Your task to perform on an android device: turn off sleep mode Image 0: 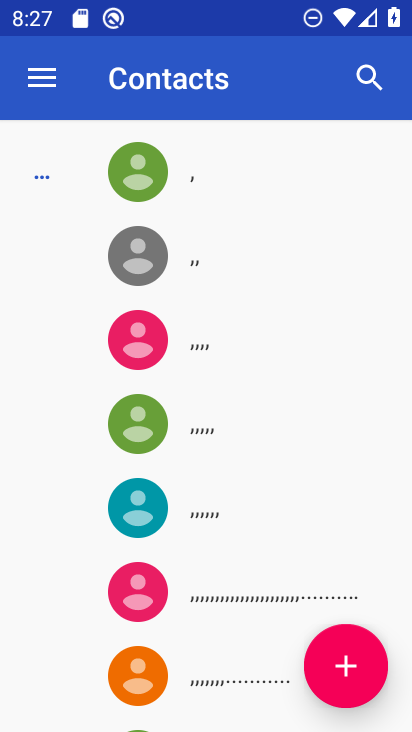
Step 0: press home button
Your task to perform on an android device: turn off sleep mode Image 1: 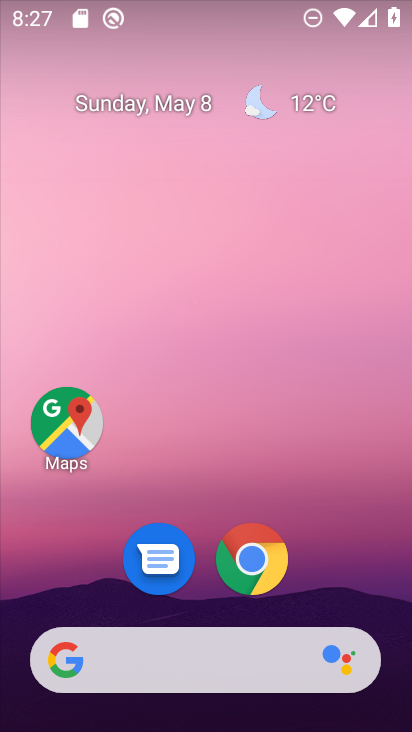
Step 1: drag from (348, 569) to (357, 5)
Your task to perform on an android device: turn off sleep mode Image 2: 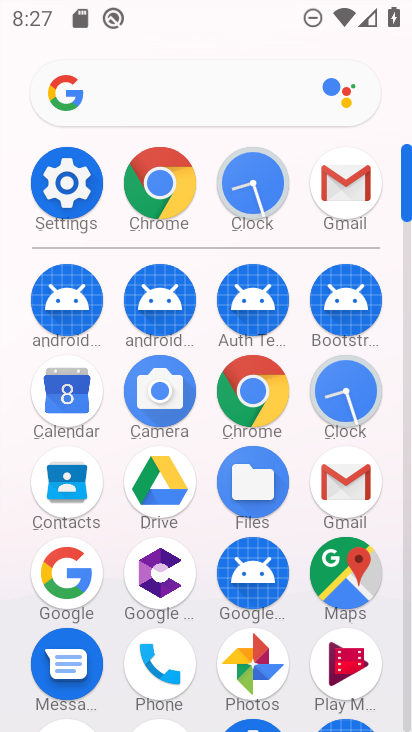
Step 2: click (57, 186)
Your task to perform on an android device: turn off sleep mode Image 3: 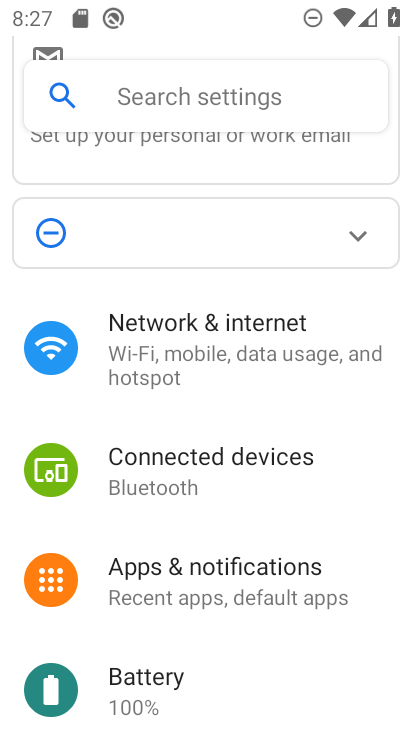
Step 3: drag from (215, 660) to (229, 163)
Your task to perform on an android device: turn off sleep mode Image 4: 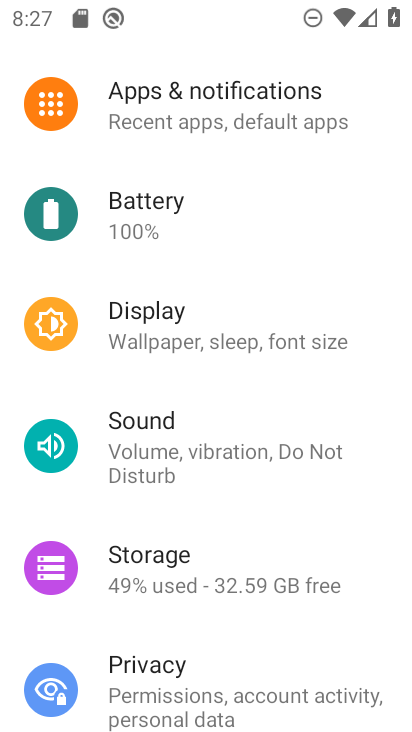
Step 4: click (121, 346)
Your task to perform on an android device: turn off sleep mode Image 5: 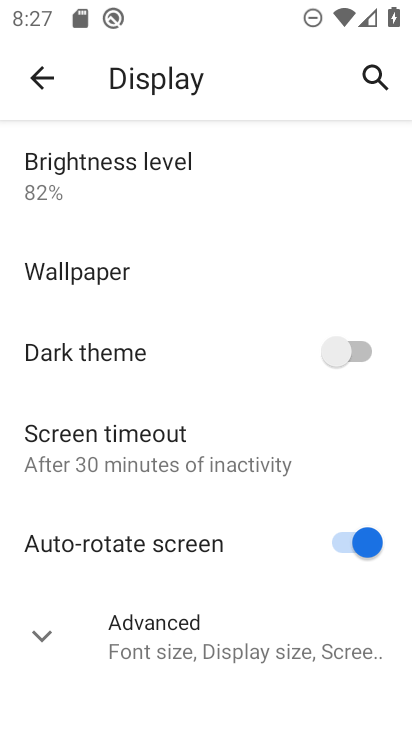
Step 5: drag from (203, 590) to (198, 236)
Your task to perform on an android device: turn off sleep mode Image 6: 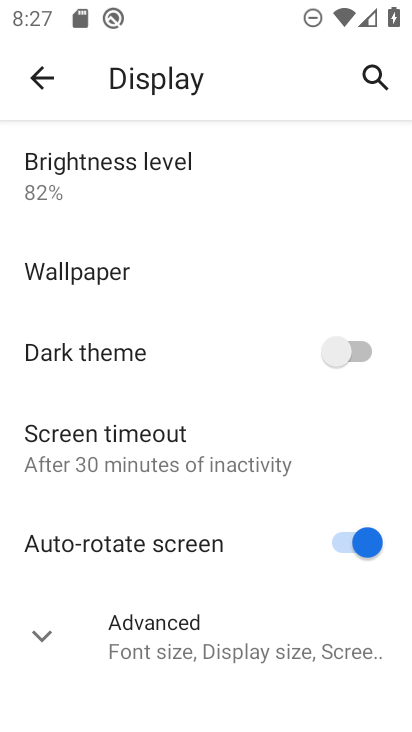
Step 6: click (39, 640)
Your task to perform on an android device: turn off sleep mode Image 7: 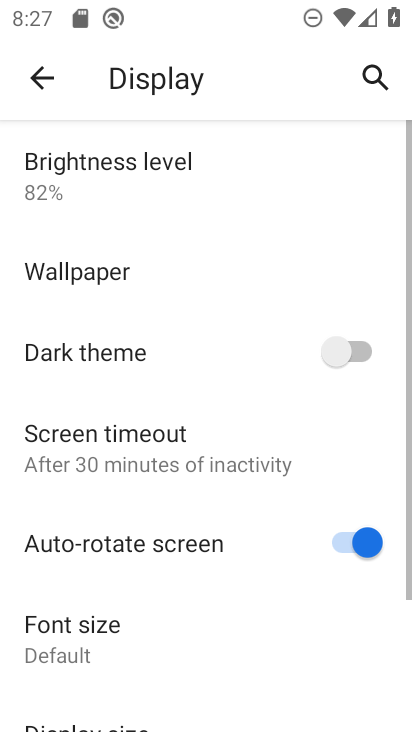
Step 7: task complete